Your task to perform on an android device: What's the weather today? Image 0: 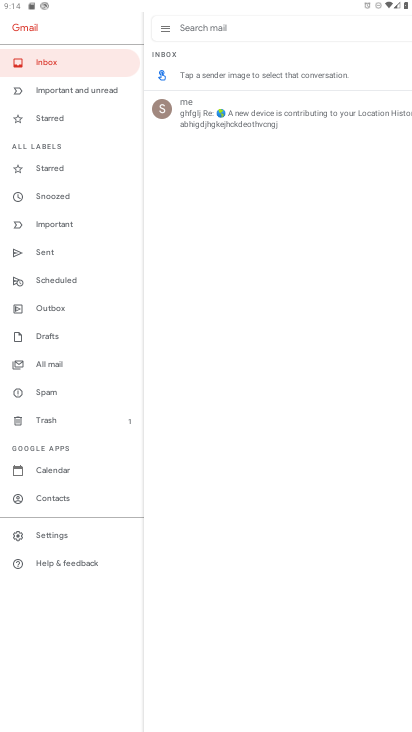
Step 0: press home button
Your task to perform on an android device: What's the weather today? Image 1: 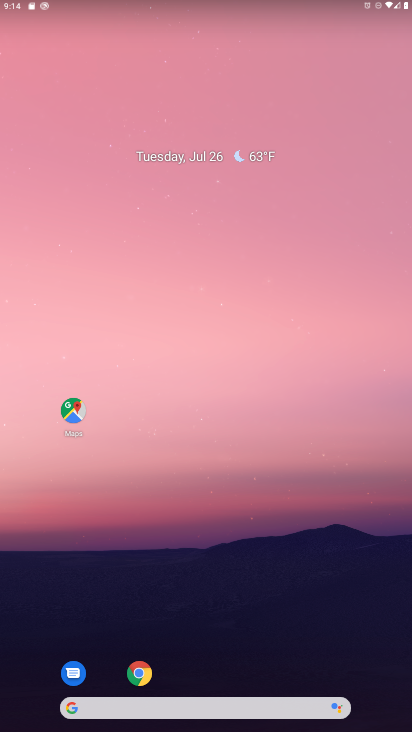
Step 1: drag from (322, 634) to (32, 40)
Your task to perform on an android device: What's the weather today? Image 2: 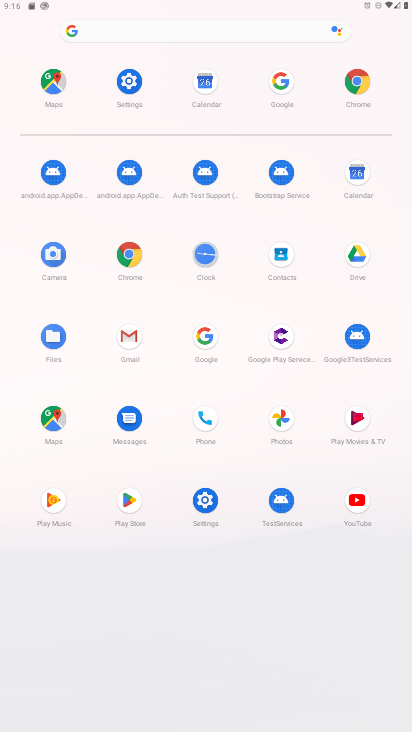
Step 2: click (198, 336)
Your task to perform on an android device: What's the weather today? Image 3: 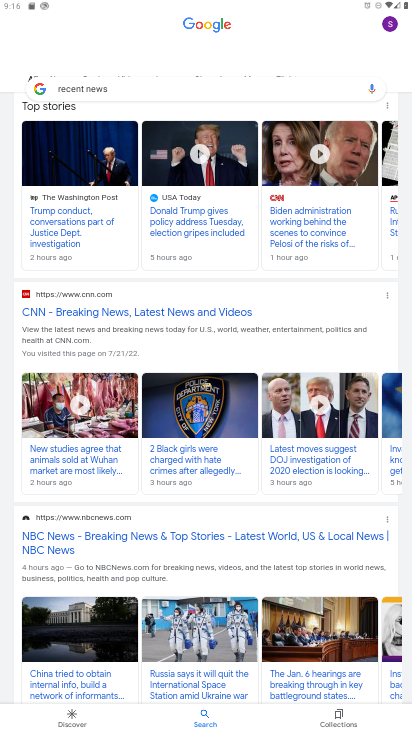
Step 3: click (125, 86)
Your task to perform on an android device: What's the weather today? Image 4: 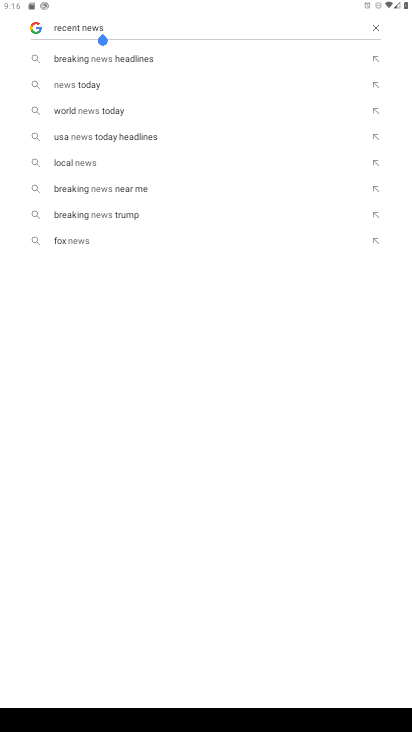
Step 4: click (373, 27)
Your task to perform on an android device: What's the weather today? Image 5: 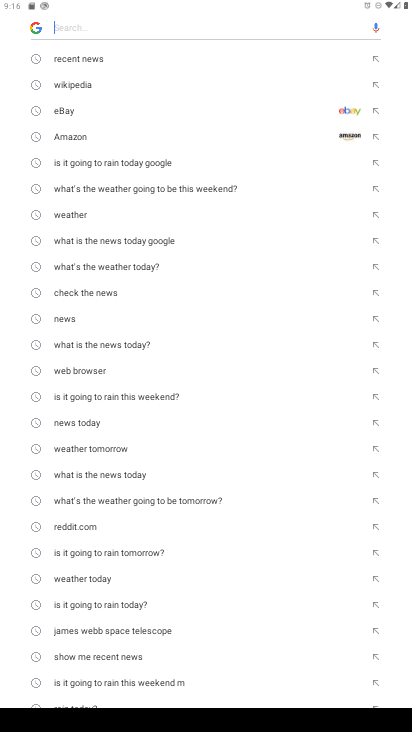
Step 5: type "What's the weather today?"
Your task to perform on an android device: What's the weather today? Image 6: 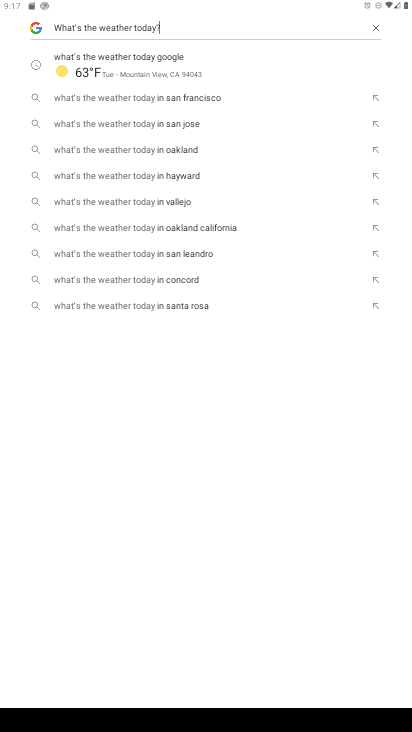
Step 6: click (113, 56)
Your task to perform on an android device: What's the weather today? Image 7: 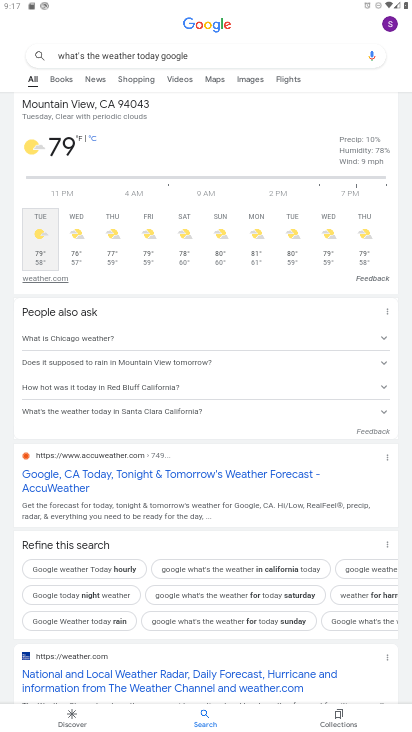
Step 7: task complete